Your task to perform on an android device: Search for sushi restaurants on Maps Image 0: 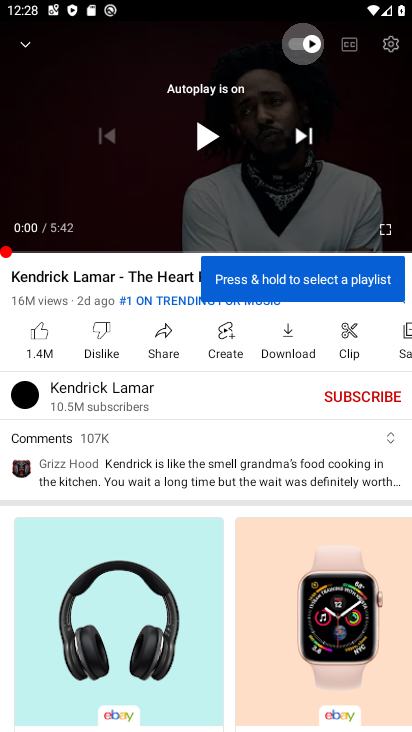
Step 0: press back button
Your task to perform on an android device: Search for sushi restaurants on Maps Image 1: 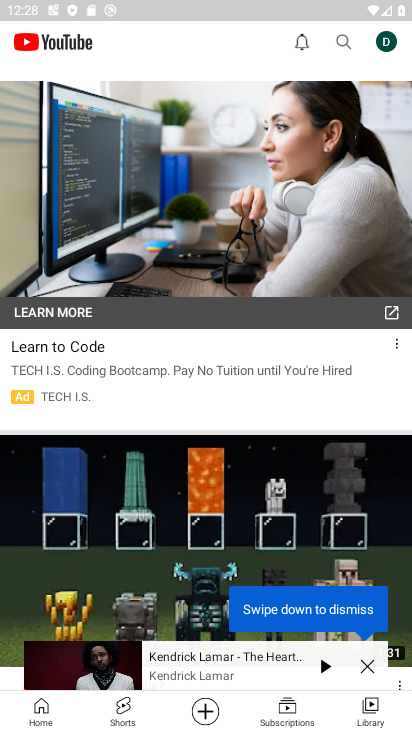
Step 1: press back button
Your task to perform on an android device: Search for sushi restaurants on Maps Image 2: 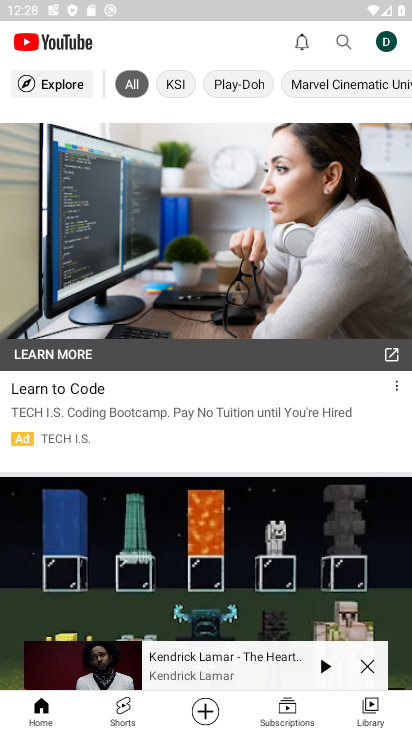
Step 2: press back button
Your task to perform on an android device: Search for sushi restaurants on Maps Image 3: 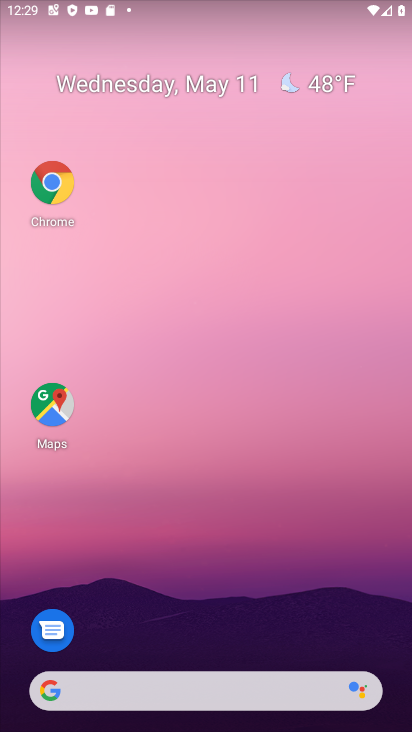
Step 3: click (65, 402)
Your task to perform on an android device: Search for sushi restaurants on Maps Image 4: 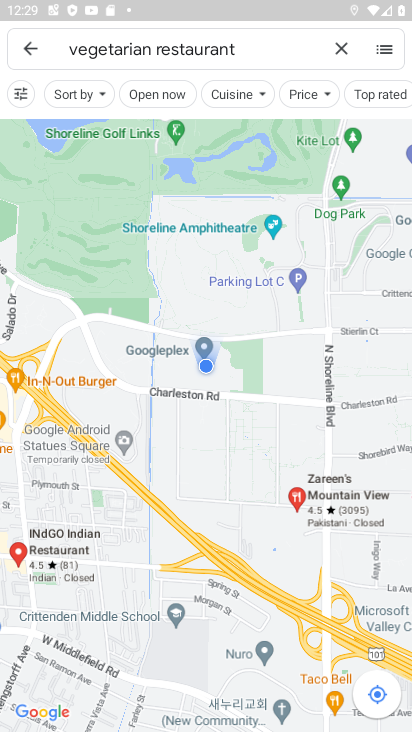
Step 4: click (270, 56)
Your task to perform on an android device: Search for sushi restaurants on Maps Image 5: 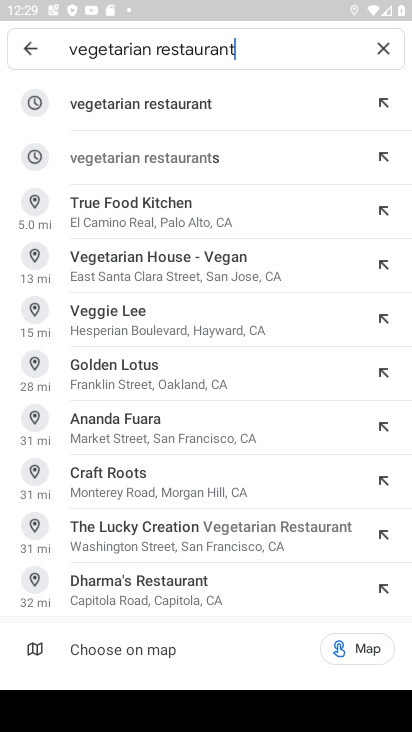
Step 5: click (385, 46)
Your task to perform on an android device: Search for sushi restaurants on Maps Image 6: 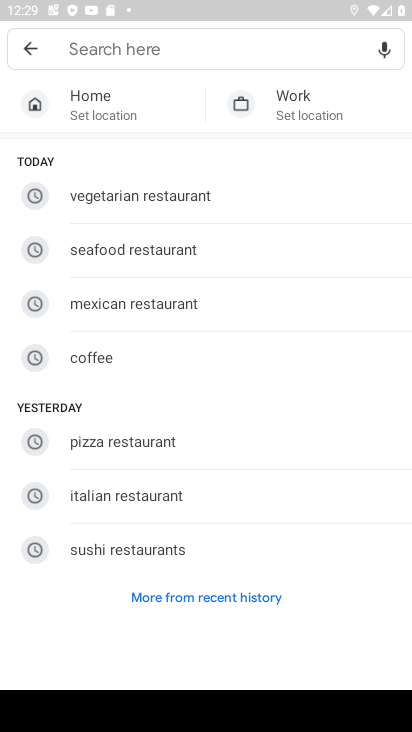
Step 6: click (133, 539)
Your task to perform on an android device: Search for sushi restaurants on Maps Image 7: 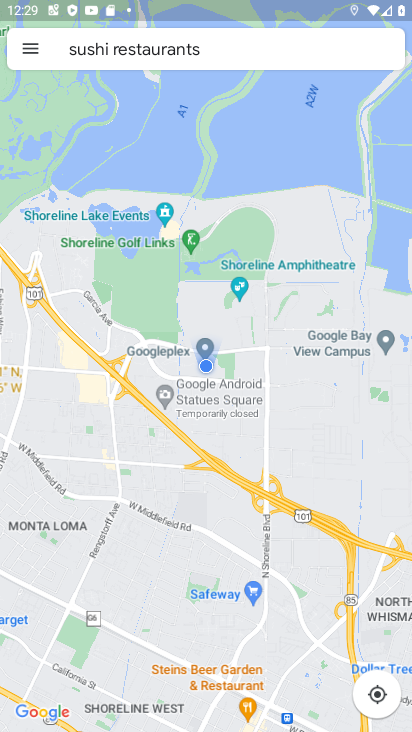
Step 7: task complete